Your task to perform on an android device: add a contact Image 0: 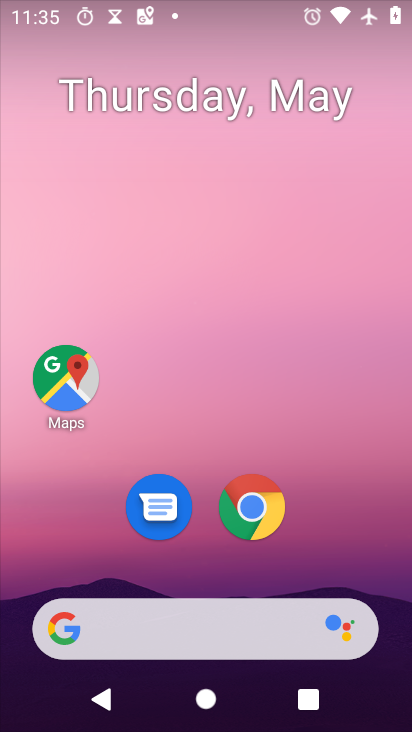
Step 0: drag from (313, 540) to (254, 56)
Your task to perform on an android device: add a contact Image 1: 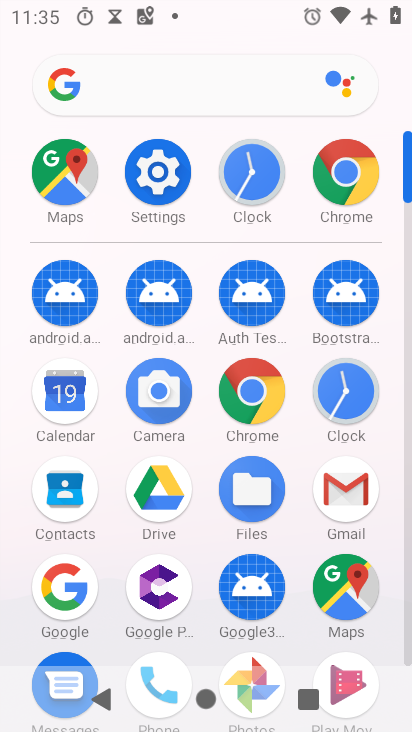
Step 1: drag from (6, 600) to (28, 256)
Your task to perform on an android device: add a contact Image 2: 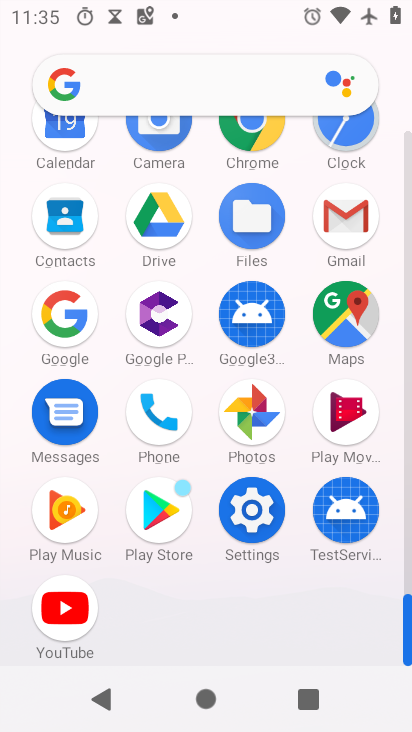
Step 2: click (64, 199)
Your task to perform on an android device: add a contact Image 3: 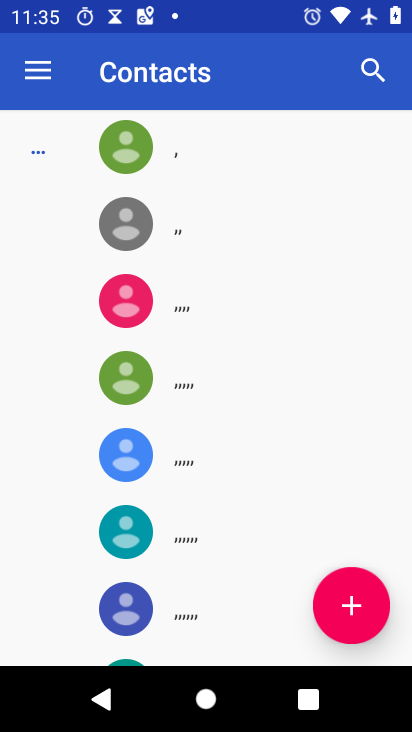
Step 3: click (347, 600)
Your task to perform on an android device: add a contact Image 4: 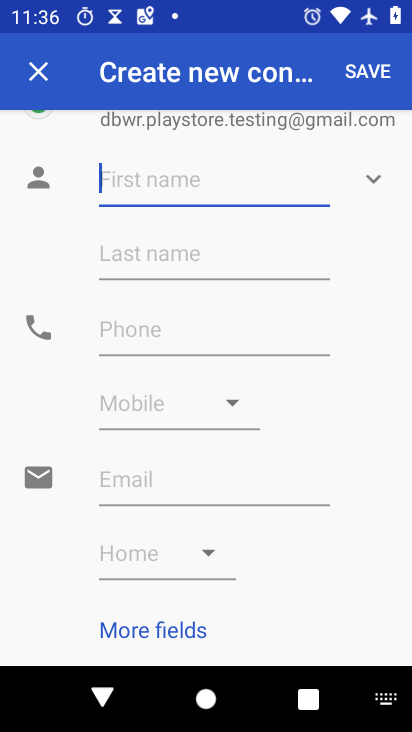
Step 4: type "ZXCVB"
Your task to perform on an android device: add a contact Image 5: 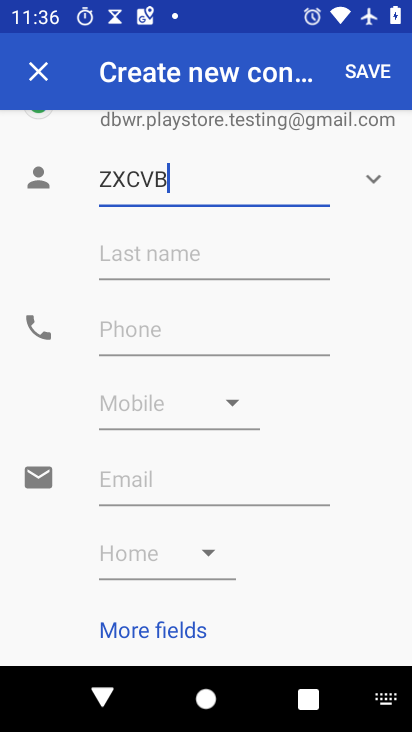
Step 5: type ""
Your task to perform on an android device: add a contact Image 6: 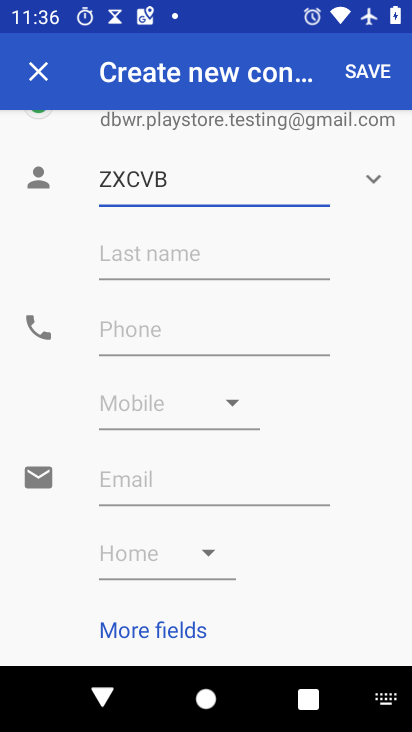
Step 6: click (187, 329)
Your task to perform on an android device: add a contact Image 7: 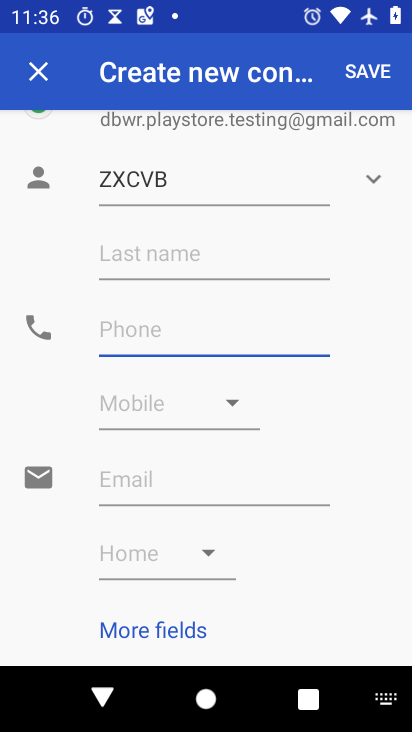
Step 7: type "34567890"
Your task to perform on an android device: add a contact Image 8: 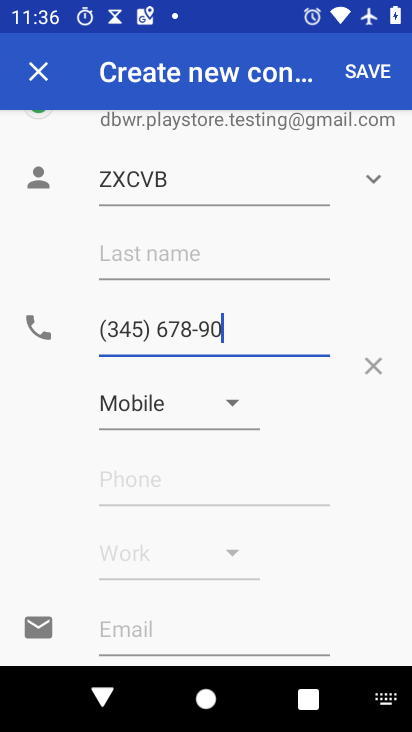
Step 8: type ""
Your task to perform on an android device: add a contact Image 9: 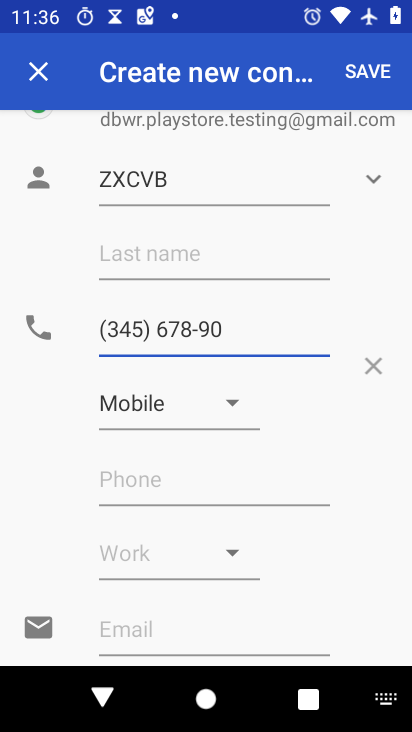
Step 9: click (360, 59)
Your task to perform on an android device: add a contact Image 10: 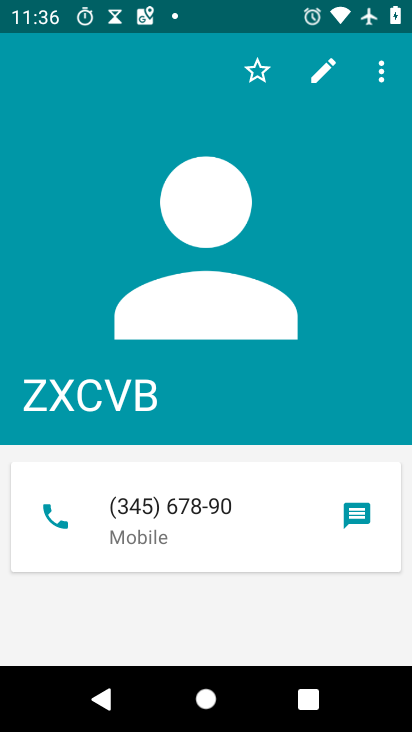
Step 10: task complete